Your task to perform on an android device: remove spam from my inbox in the gmail app Image 0: 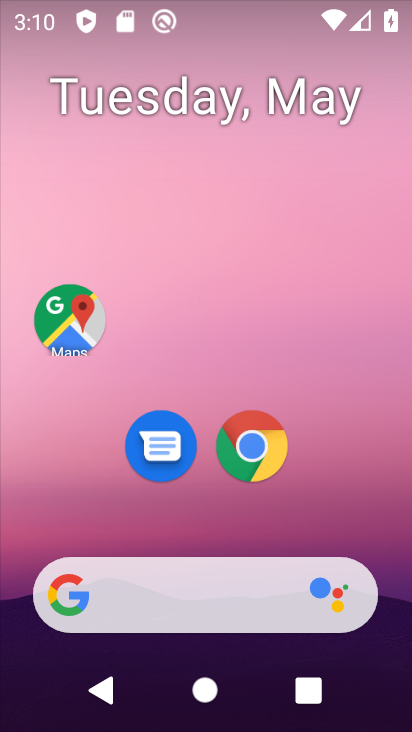
Step 0: drag from (225, 730) to (232, 242)
Your task to perform on an android device: remove spam from my inbox in the gmail app Image 1: 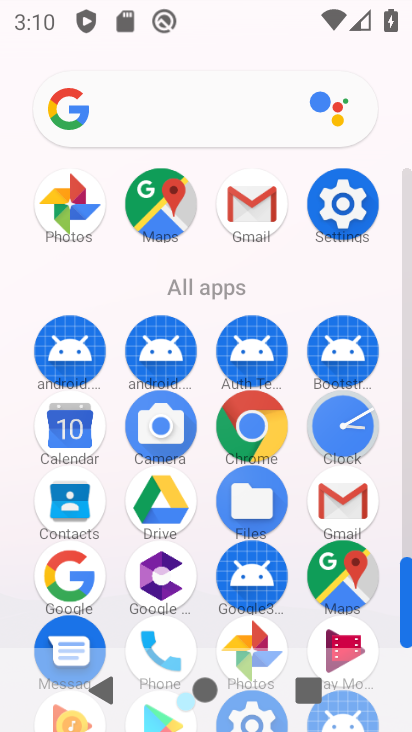
Step 1: click (339, 499)
Your task to perform on an android device: remove spam from my inbox in the gmail app Image 2: 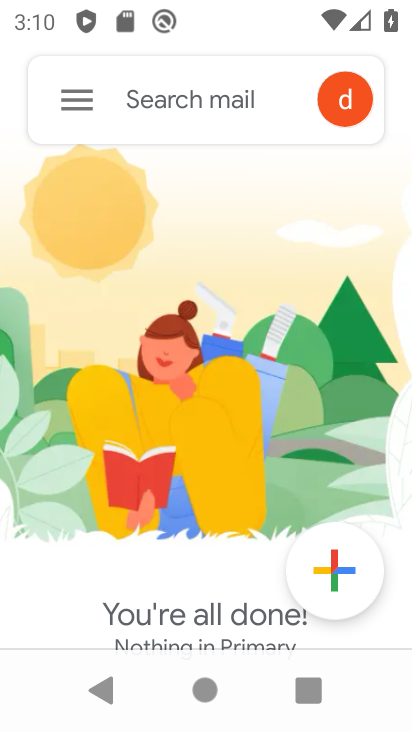
Step 2: task complete